Your task to perform on an android device: Clear all items from cart on ebay. Image 0: 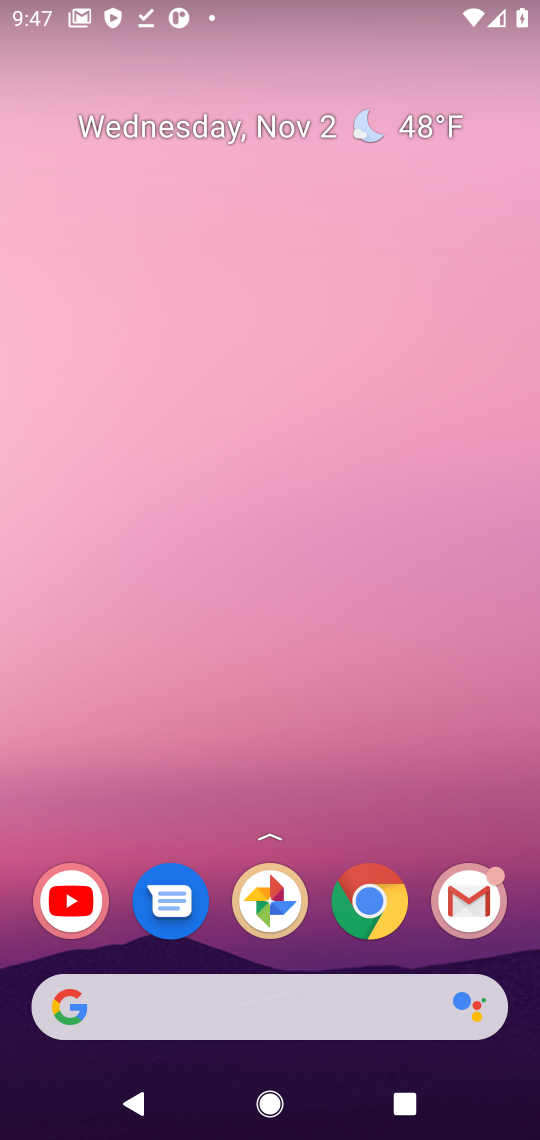
Step 0: click (366, 903)
Your task to perform on an android device: Clear all items from cart on ebay. Image 1: 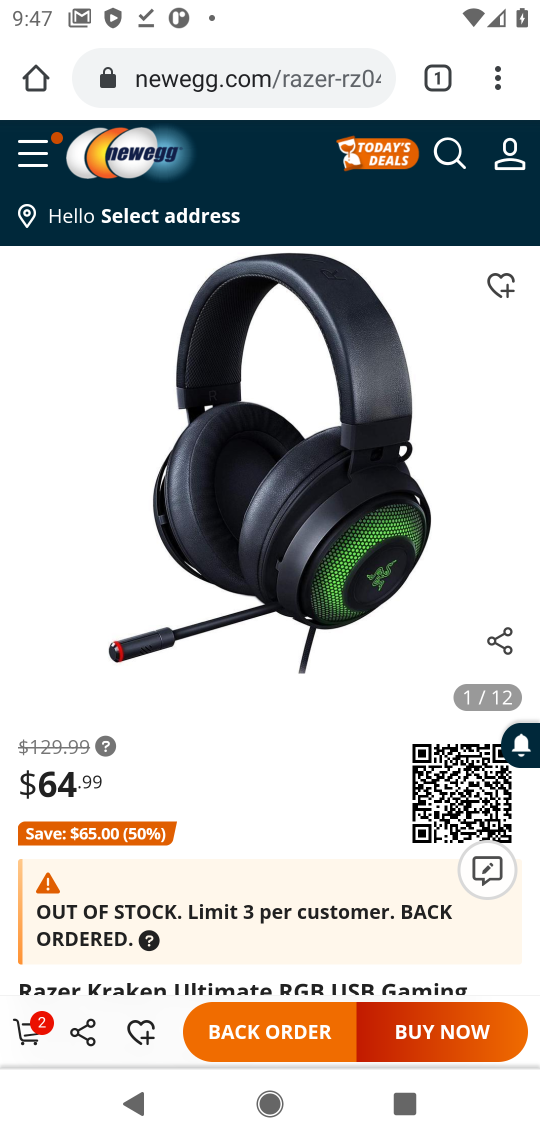
Step 1: click (274, 81)
Your task to perform on an android device: Clear all items from cart on ebay. Image 2: 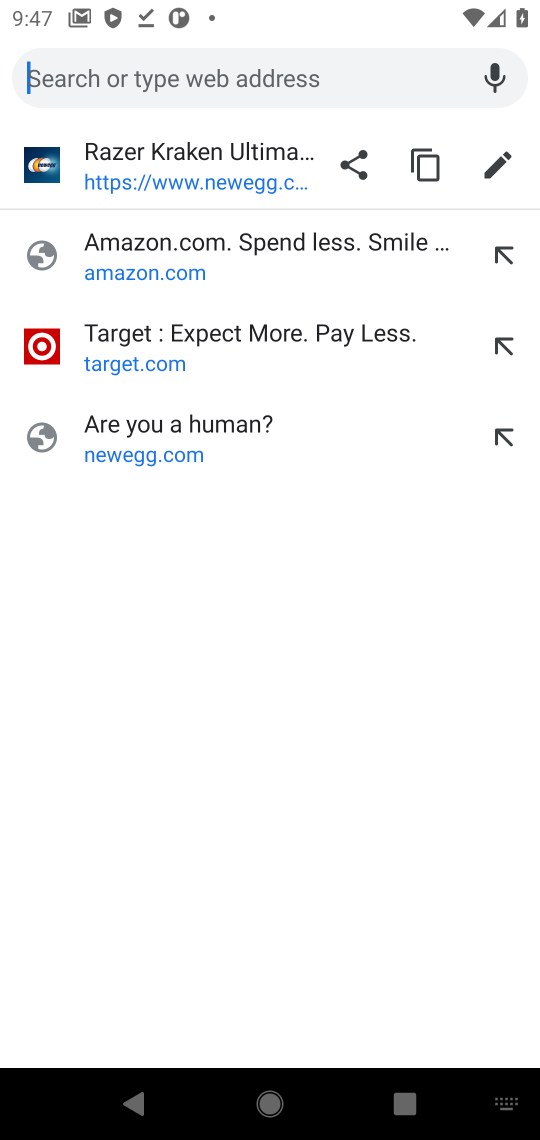
Step 2: type "ebay"
Your task to perform on an android device: Clear all items from cart on ebay. Image 3: 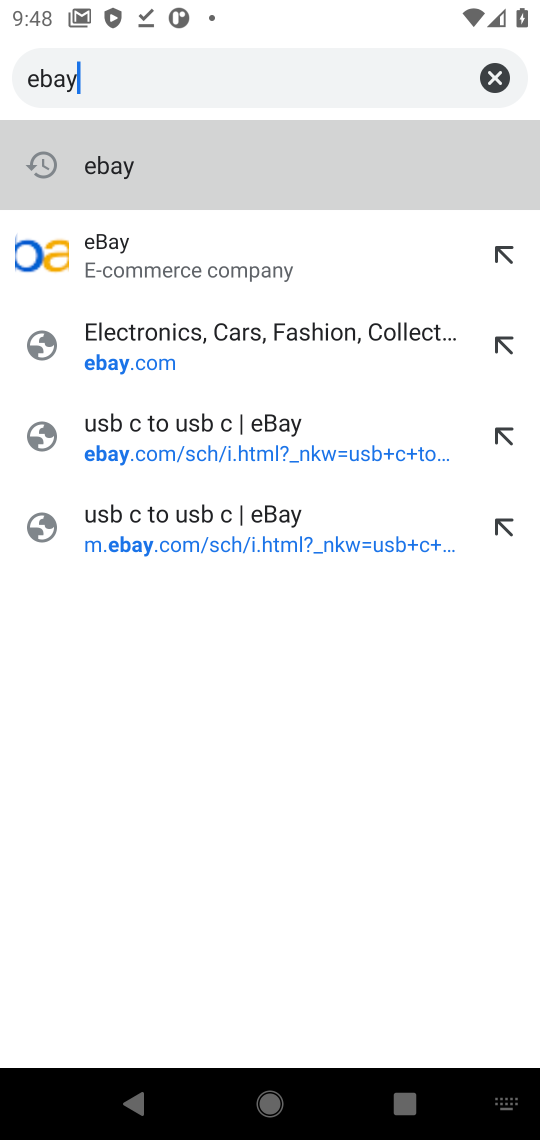
Step 3: click (133, 248)
Your task to perform on an android device: Clear all items from cart on ebay. Image 4: 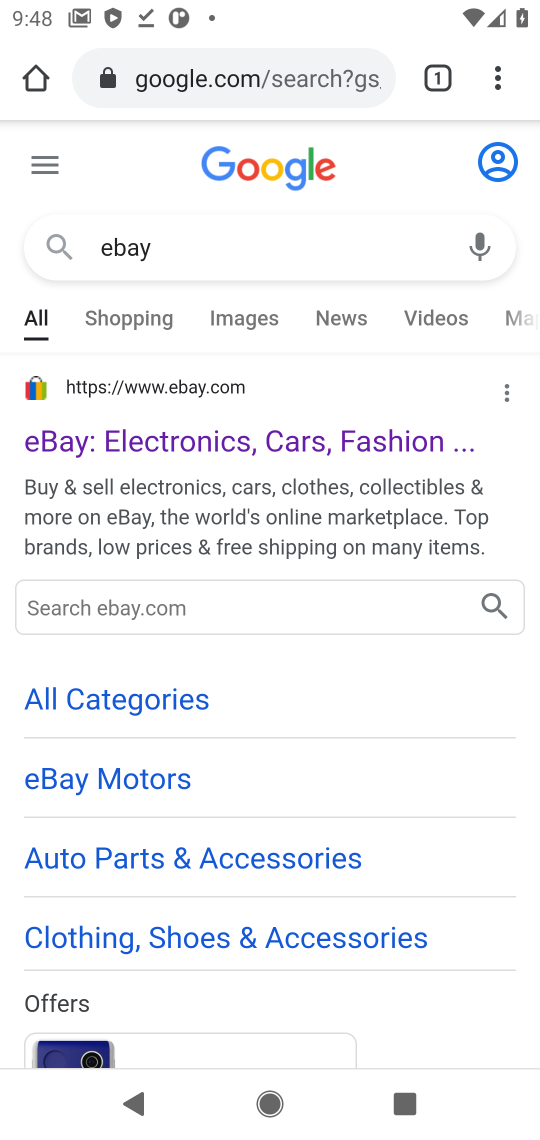
Step 4: click (125, 440)
Your task to perform on an android device: Clear all items from cart on ebay. Image 5: 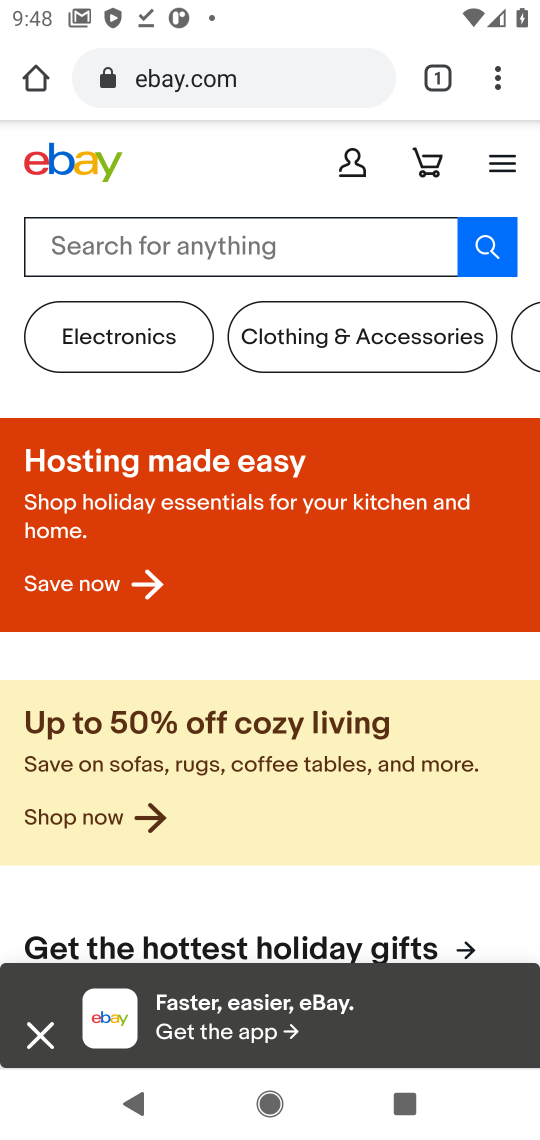
Step 5: click (424, 164)
Your task to perform on an android device: Clear all items from cart on ebay. Image 6: 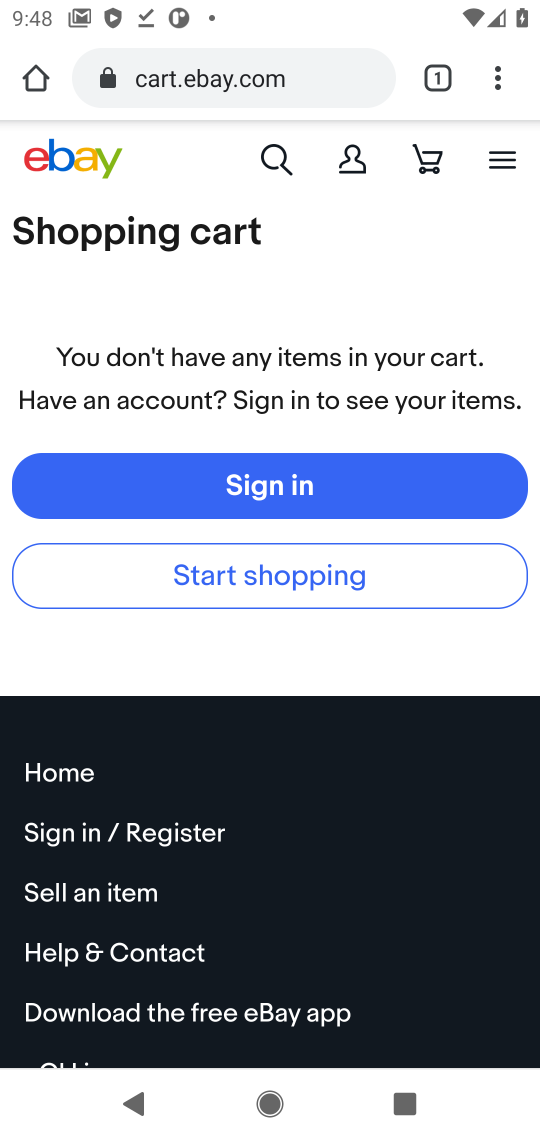
Step 6: task complete